Your task to perform on an android device: Open the calendar and show me this week's events? Image 0: 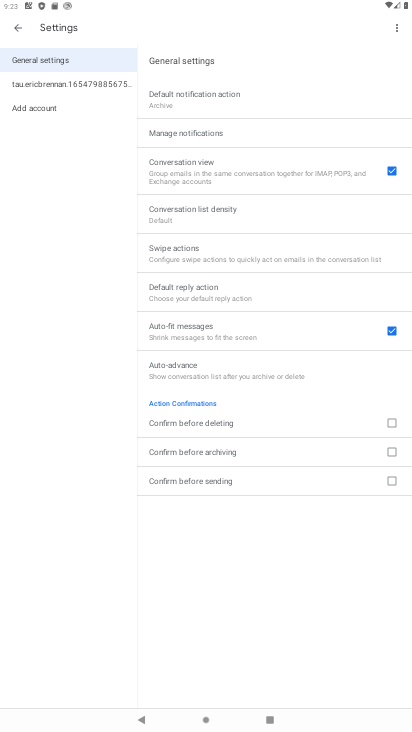
Step 0: press home button
Your task to perform on an android device: Open the calendar and show me this week's events? Image 1: 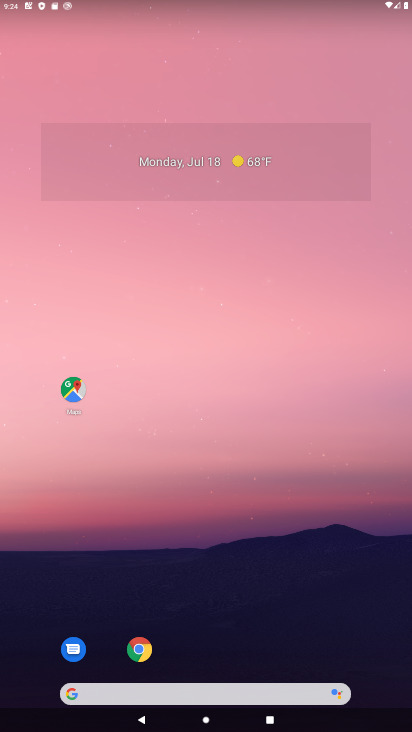
Step 1: drag from (175, 706) to (105, 31)
Your task to perform on an android device: Open the calendar and show me this week's events? Image 2: 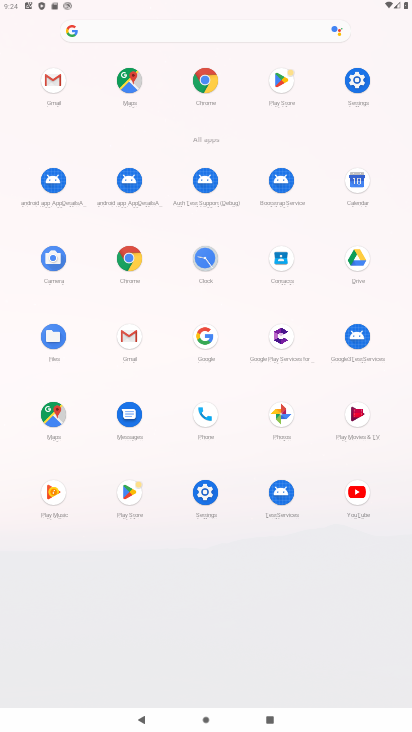
Step 2: click (370, 182)
Your task to perform on an android device: Open the calendar and show me this week's events? Image 3: 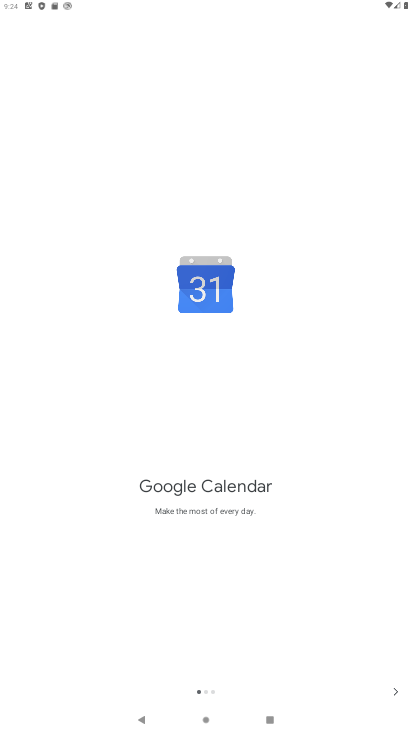
Step 3: click (396, 686)
Your task to perform on an android device: Open the calendar and show me this week's events? Image 4: 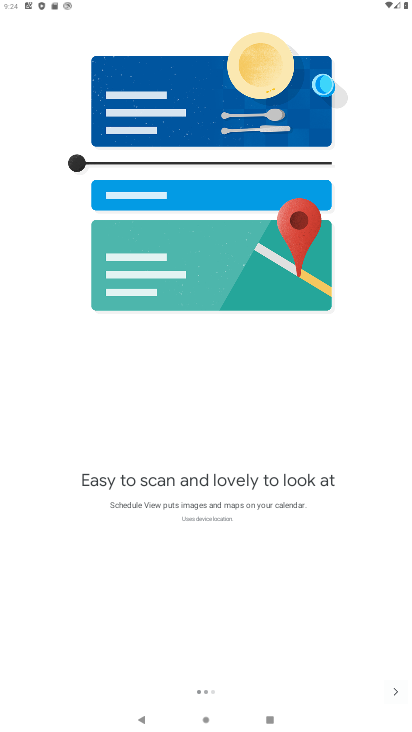
Step 4: click (396, 686)
Your task to perform on an android device: Open the calendar and show me this week's events? Image 5: 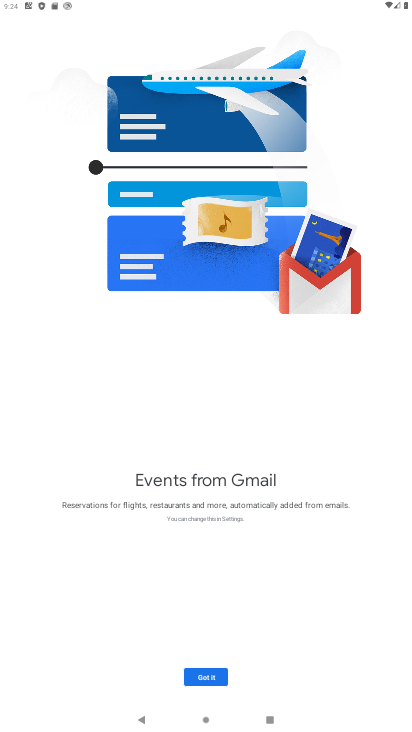
Step 5: click (213, 672)
Your task to perform on an android device: Open the calendar and show me this week's events? Image 6: 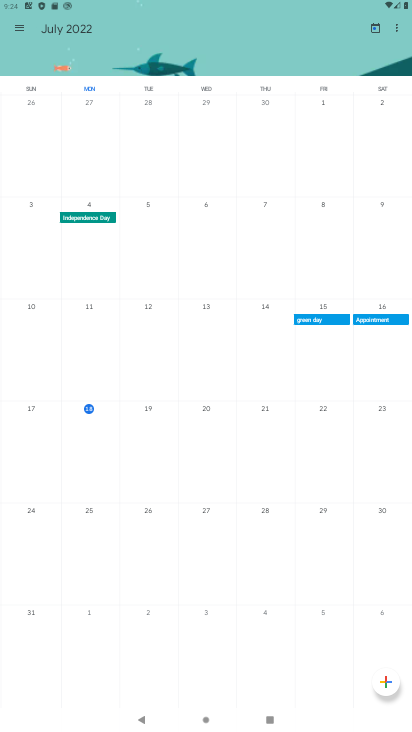
Step 6: click (22, 24)
Your task to perform on an android device: Open the calendar and show me this week's events? Image 7: 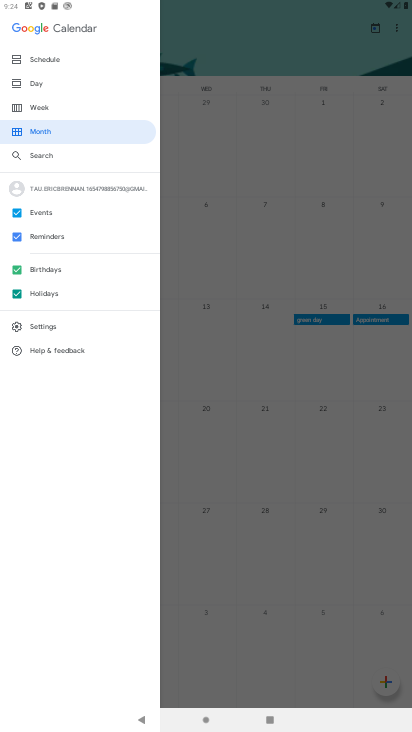
Step 7: click (65, 54)
Your task to perform on an android device: Open the calendar and show me this week's events? Image 8: 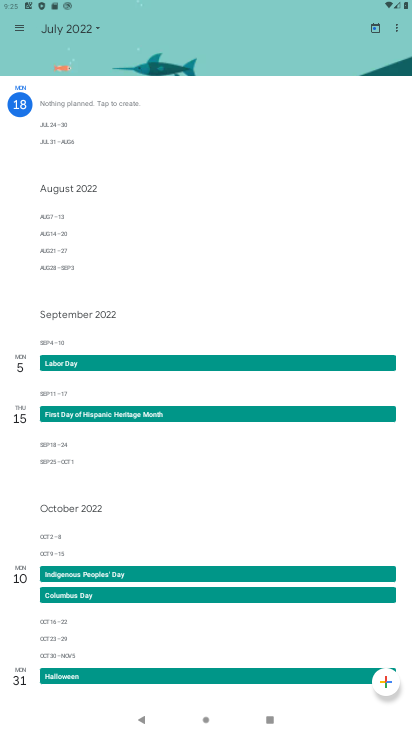
Step 8: task complete